Your task to perform on an android device: Check the news Image 0: 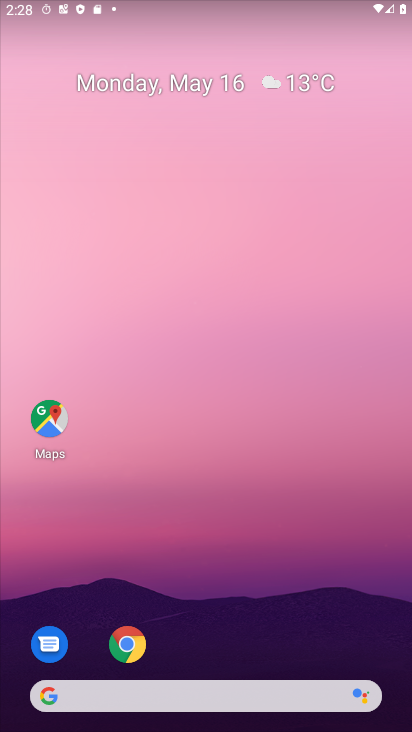
Step 0: drag from (206, 636) to (195, 190)
Your task to perform on an android device: Check the news Image 1: 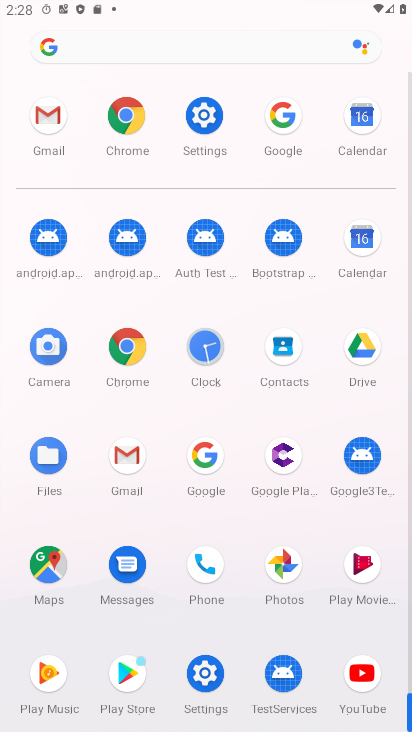
Step 1: drag from (232, 422) to (251, 269)
Your task to perform on an android device: Check the news Image 2: 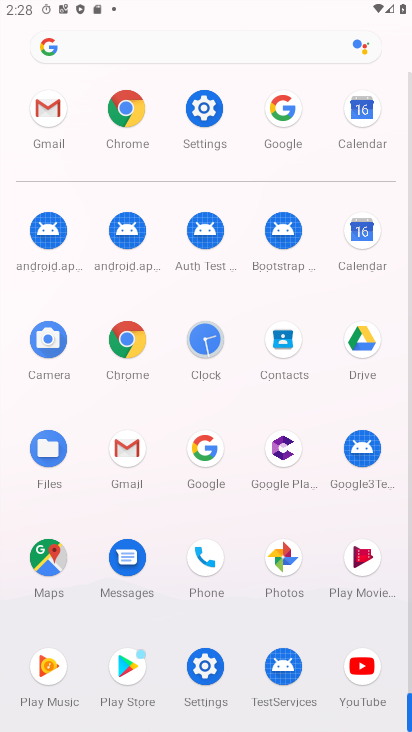
Step 2: drag from (138, 464) to (131, 280)
Your task to perform on an android device: Check the news Image 3: 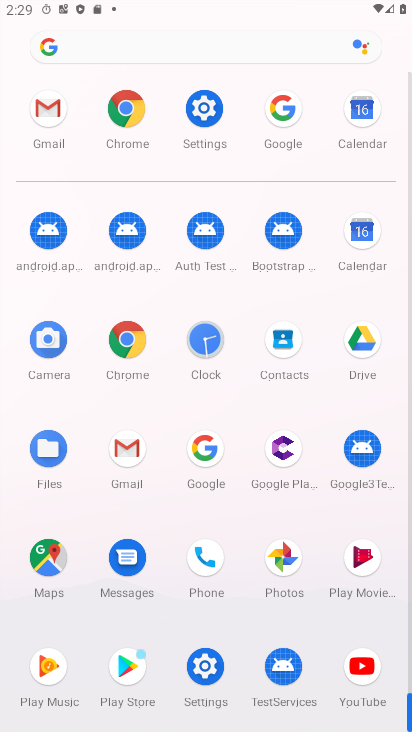
Step 3: click (211, 444)
Your task to perform on an android device: Check the news Image 4: 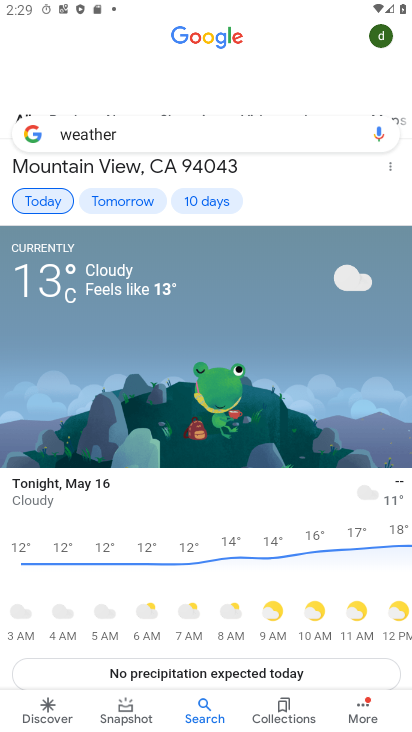
Step 4: click (245, 136)
Your task to perform on an android device: Check the news Image 5: 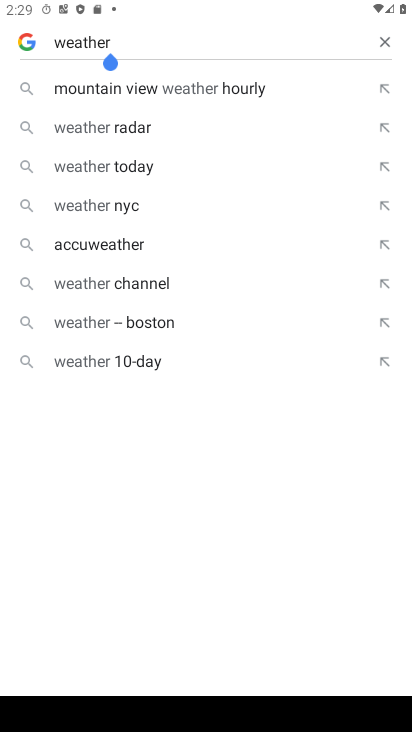
Step 5: click (387, 37)
Your task to perform on an android device: Check the news Image 6: 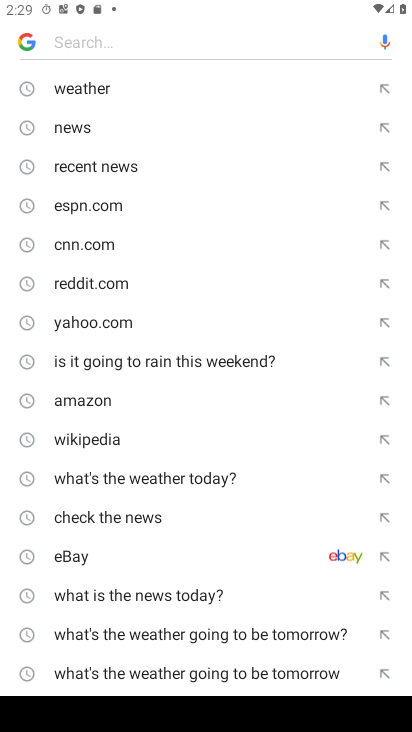
Step 6: click (83, 124)
Your task to perform on an android device: Check the news Image 7: 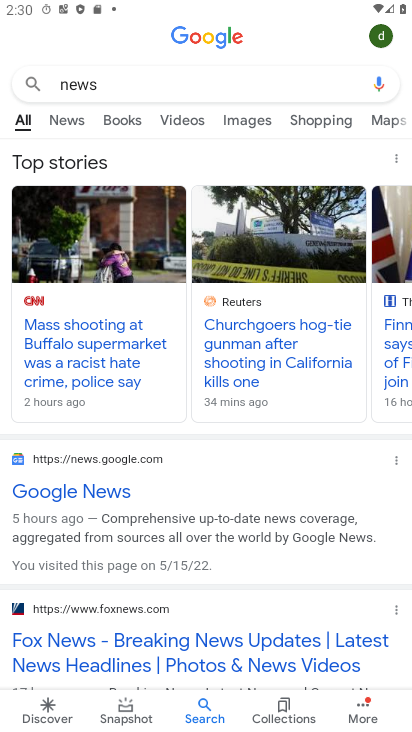
Step 7: task complete